Your task to perform on an android device: turn on the 12-hour format for clock Image 0: 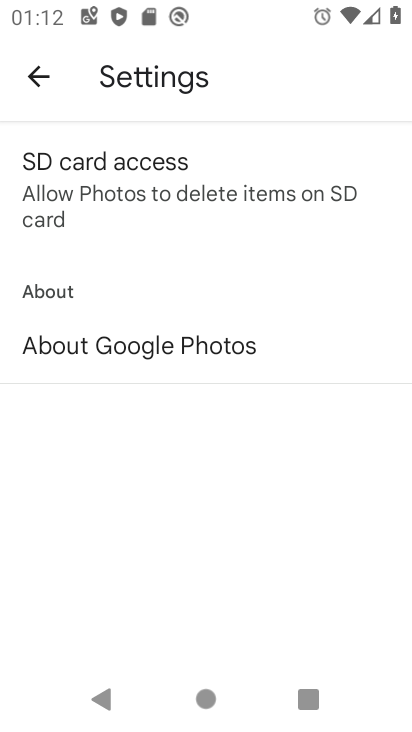
Step 0: press home button
Your task to perform on an android device: turn on the 12-hour format for clock Image 1: 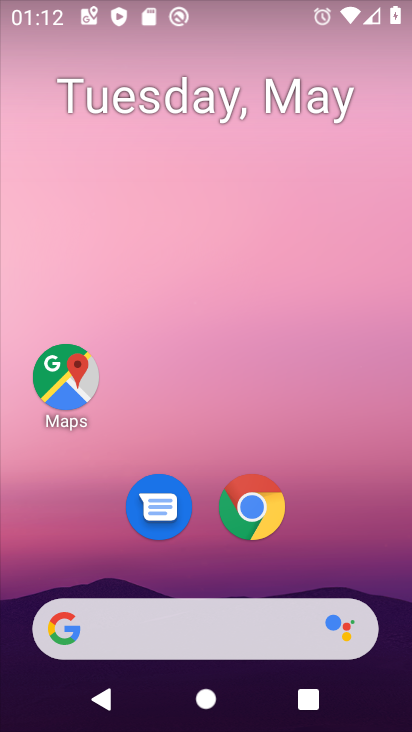
Step 1: drag from (182, 546) to (205, 250)
Your task to perform on an android device: turn on the 12-hour format for clock Image 2: 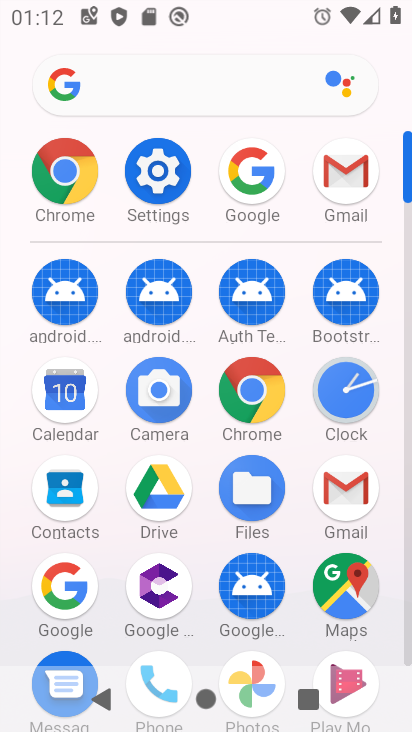
Step 2: click (356, 412)
Your task to perform on an android device: turn on the 12-hour format for clock Image 3: 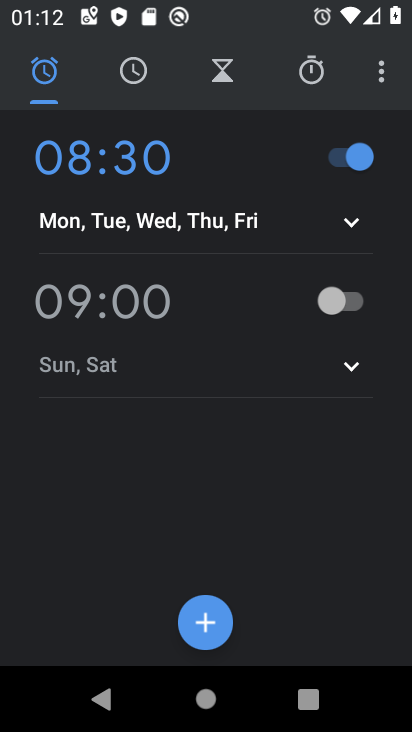
Step 3: click (382, 95)
Your task to perform on an android device: turn on the 12-hour format for clock Image 4: 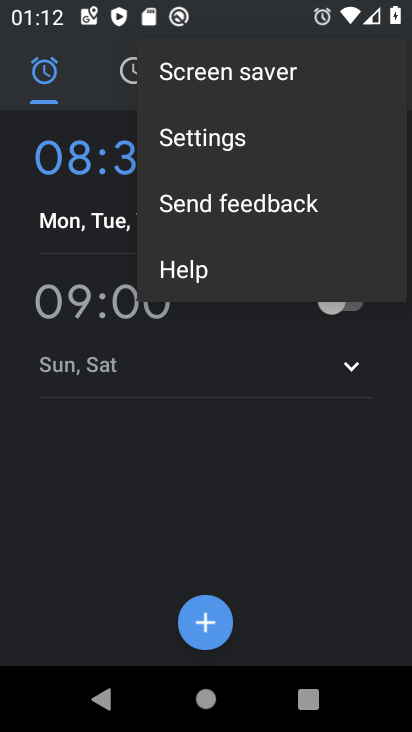
Step 4: click (201, 132)
Your task to perform on an android device: turn on the 12-hour format for clock Image 5: 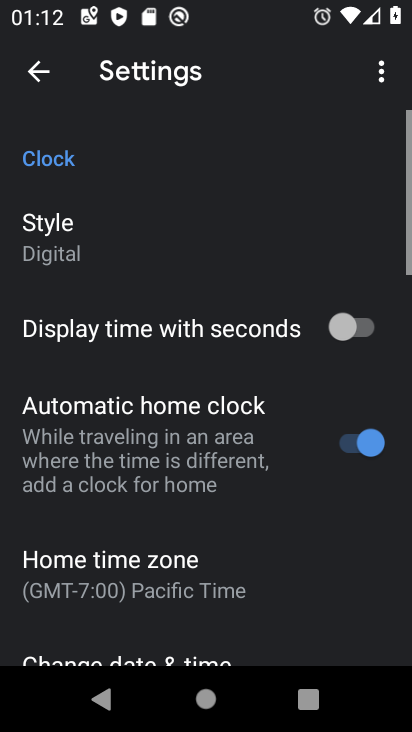
Step 5: drag from (230, 621) to (205, 333)
Your task to perform on an android device: turn on the 12-hour format for clock Image 6: 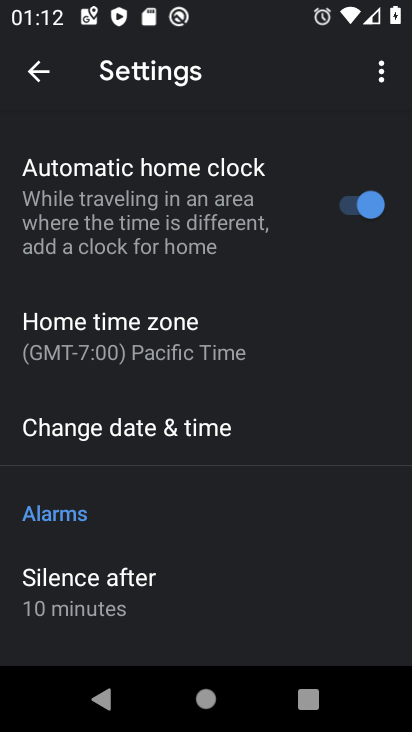
Step 6: click (96, 440)
Your task to perform on an android device: turn on the 12-hour format for clock Image 7: 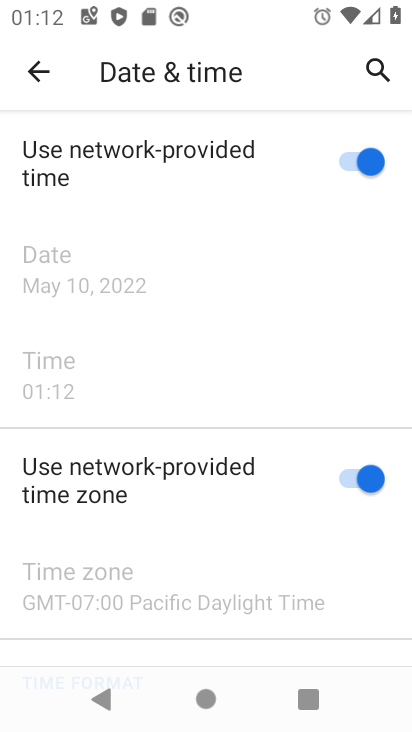
Step 7: task complete